Your task to perform on an android device: turn on airplane mode Image 0: 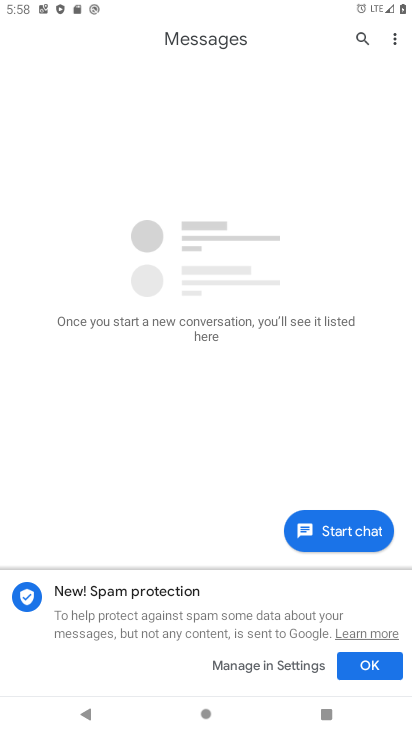
Step 0: press home button
Your task to perform on an android device: turn on airplane mode Image 1: 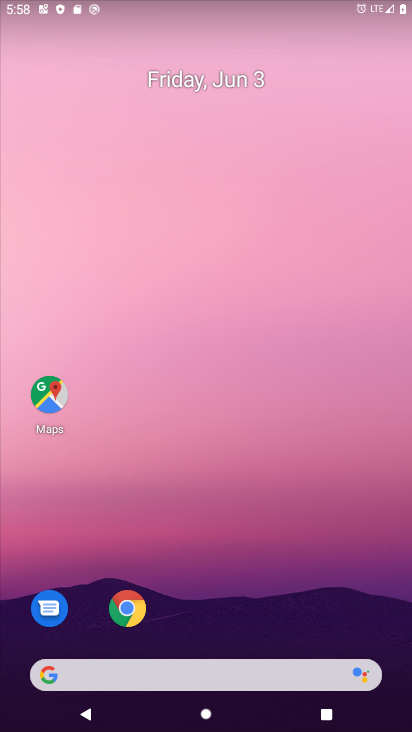
Step 1: drag from (299, 537) to (260, 196)
Your task to perform on an android device: turn on airplane mode Image 2: 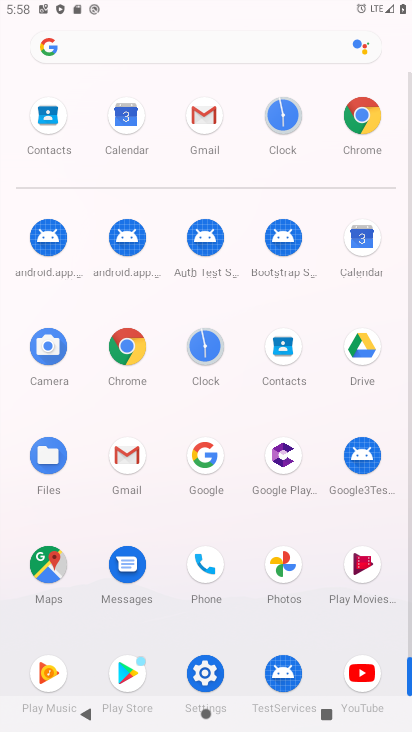
Step 2: click (205, 675)
Your task to perform on an android device: turn on airplane mode Image 3: 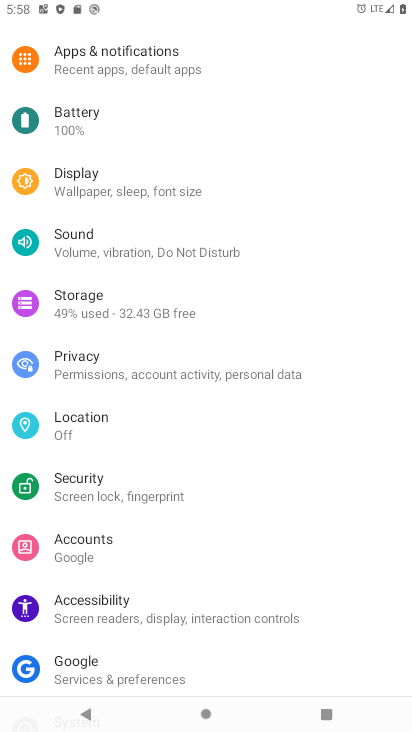
Step 3: drag from (349, 180) to (363, 508)
Your task to perform on an android device: turn on airplane mode Image 4: 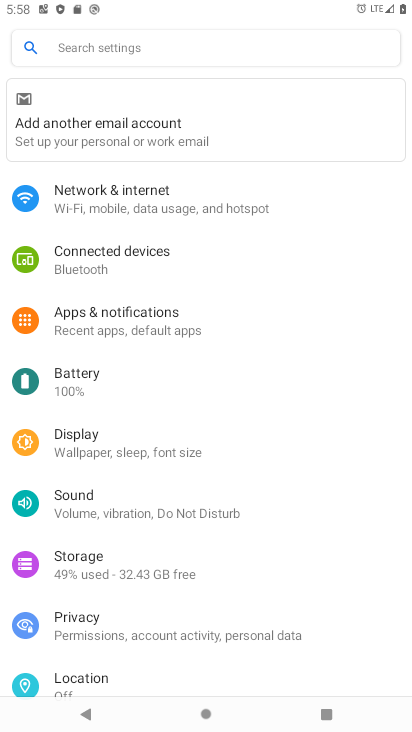
Step 4: click (198, 198)
Your task to perform on an android device: turn on airplane mode Image 5: 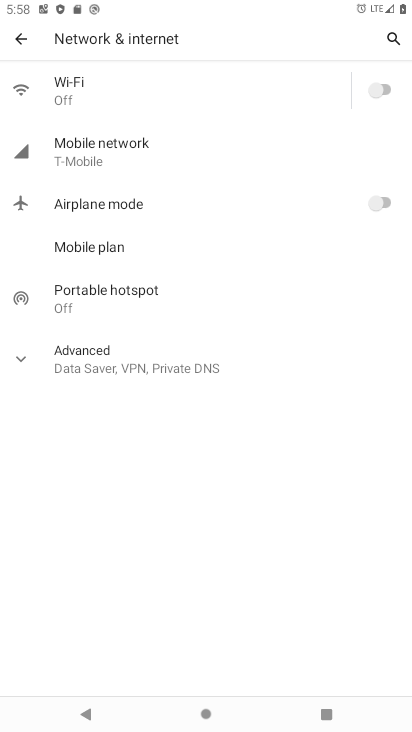
Step 5: click (390, 208)
Your task to perform on an android device: turn on airplane mode Image 6: 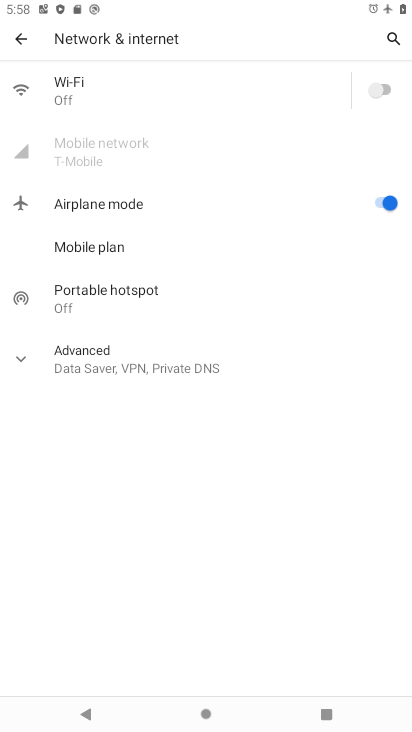
Step 6: task complete